Your task to perform on an android device: Search for sushi restaurants on Maps Image 0: 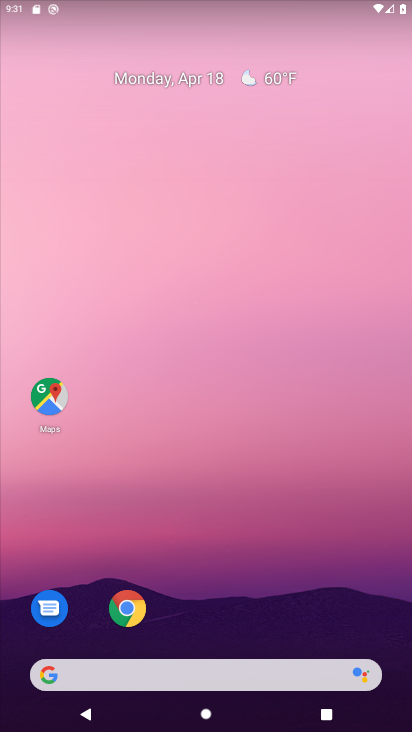
Step 0: drag from (273, 558) to (288, 152)
Your task to perform on an android device: Search for sushi restaurants on Maps Image 1: 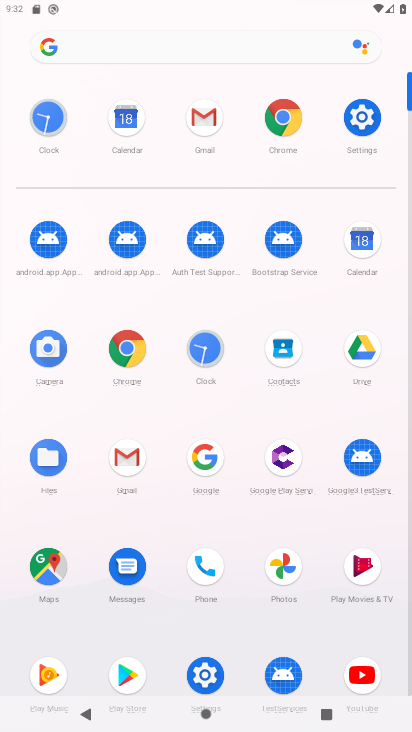
Step 1: click (37, 566)
Your task to perform on an android device: Search for sushi restaurants on Maps Image 2: 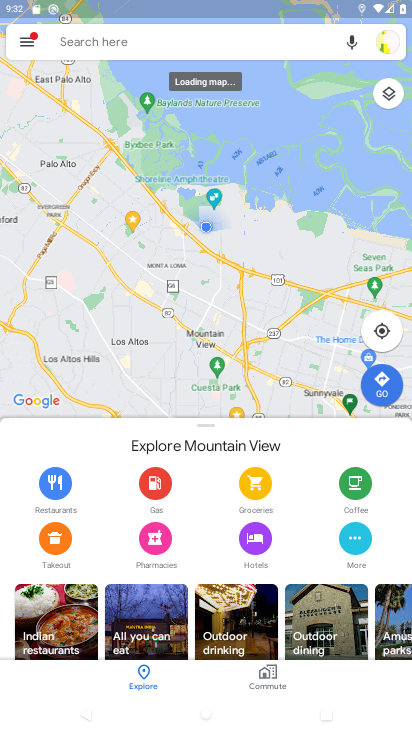
Step 2: click (178, 45)
Your task to perform on an android device: Search for sushi restaurants on Maps Image 3: 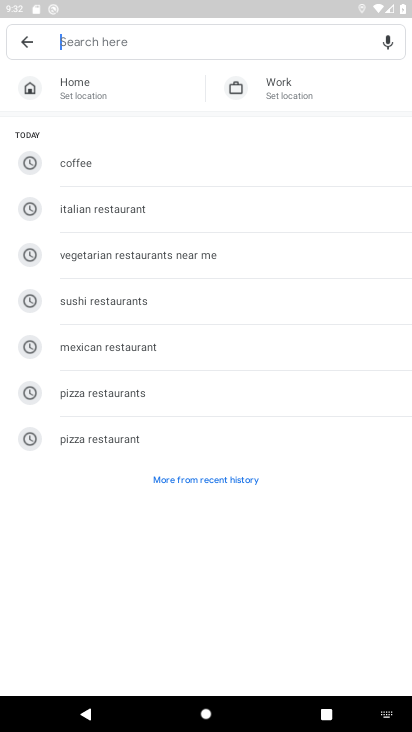
Step 3: click (150, 298)
Your task to perform on an android device: Search for sushi restaurants on Maps Image 4: 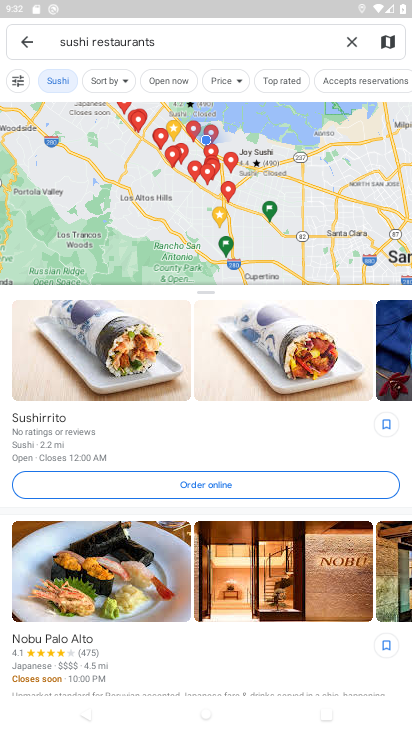
Step 4: task complete